Your task to perform on an android device: open app "Nova Launcher" Image 0: 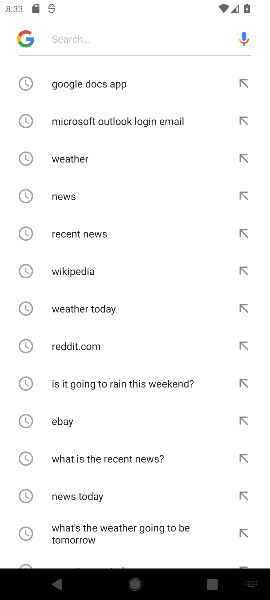
Step 0: type "nova launcher"
Your task to perform on an android device: open app "Nova Launcher" Image 1: 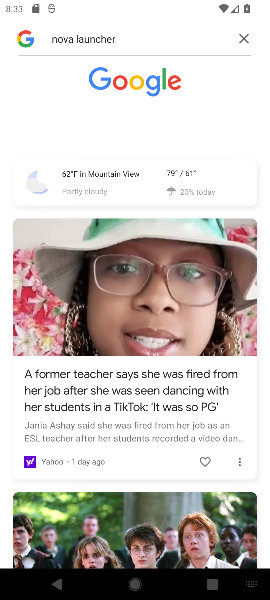
Step 1: task complete